Your task to perform on an android device: turn on bluetooth scan Image 0: 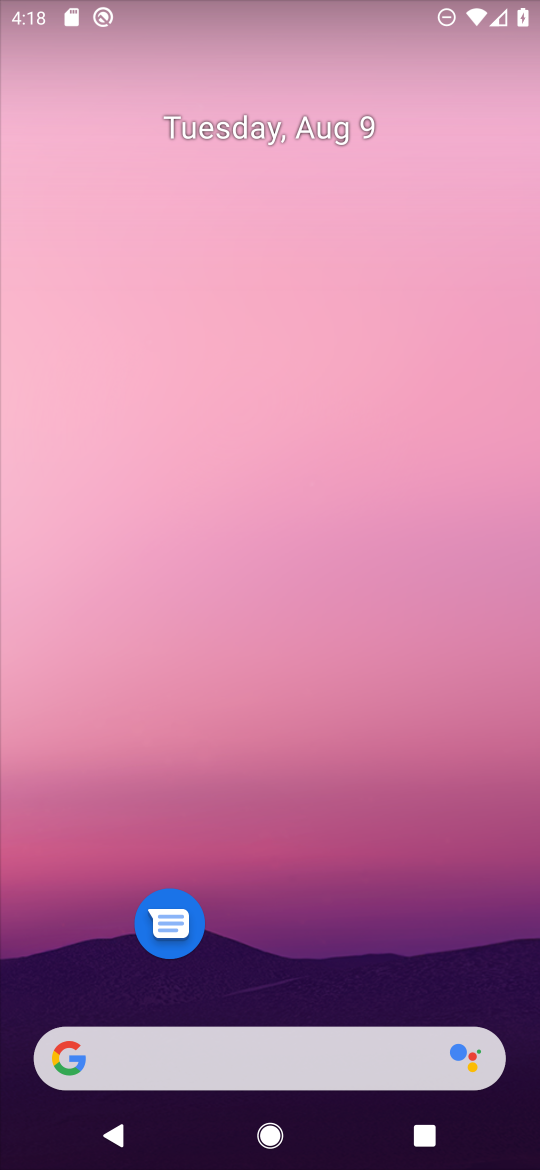
Step 0: drag from (326, 695) to (356, 52)
Your task to perform on an android device: turn on bluetooth scan Image 1: 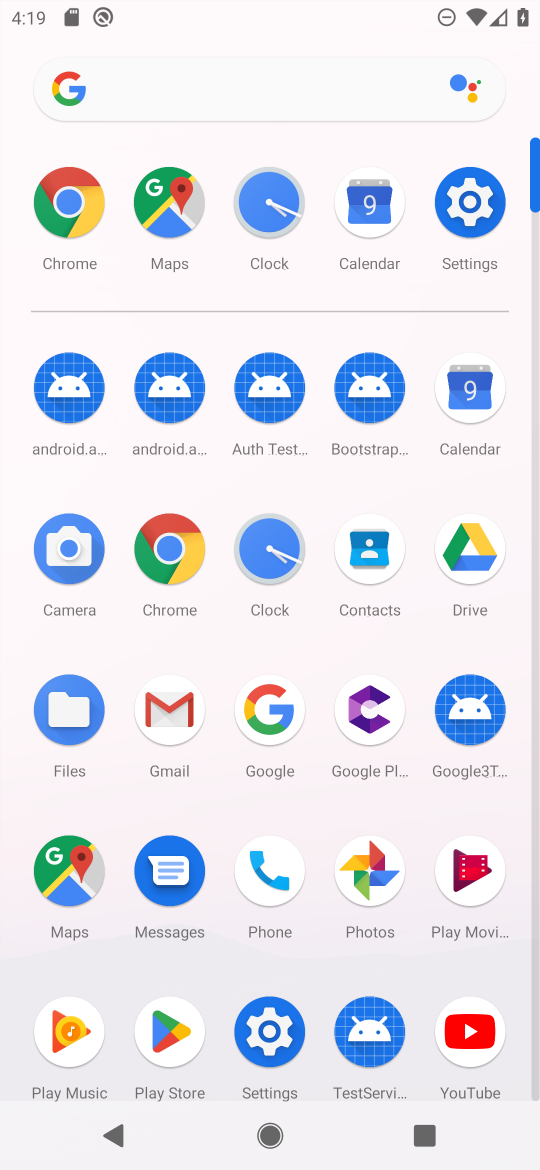
Step 1: click (468, 196)
Your task to perform on an android device: turn on bluetooth scan Image 2: 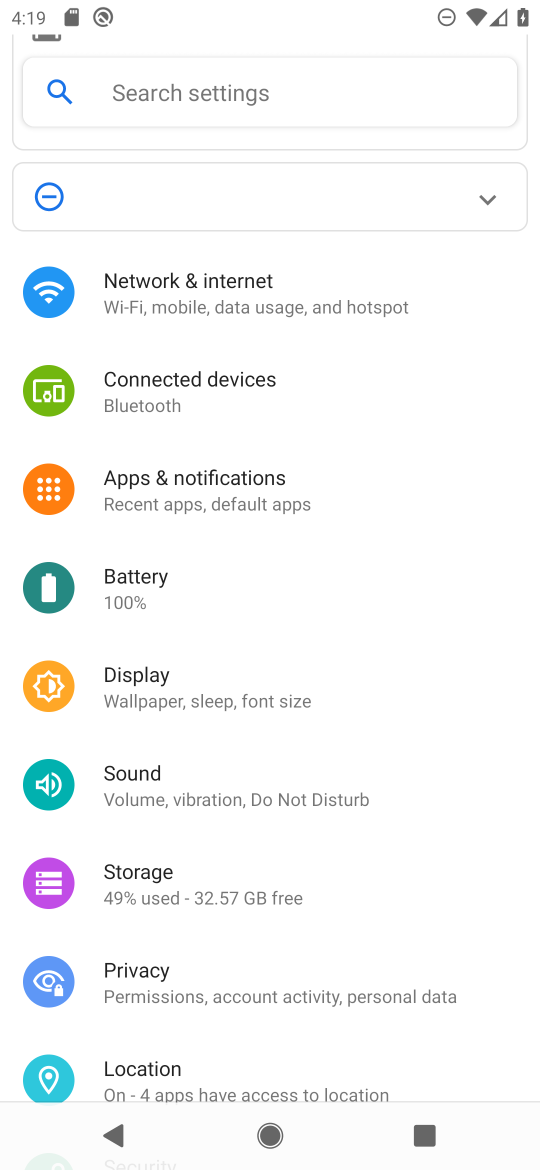
Step 2: click (177, 414)
Your task to perform on an android device: turn on bluetooth scan Image 3: 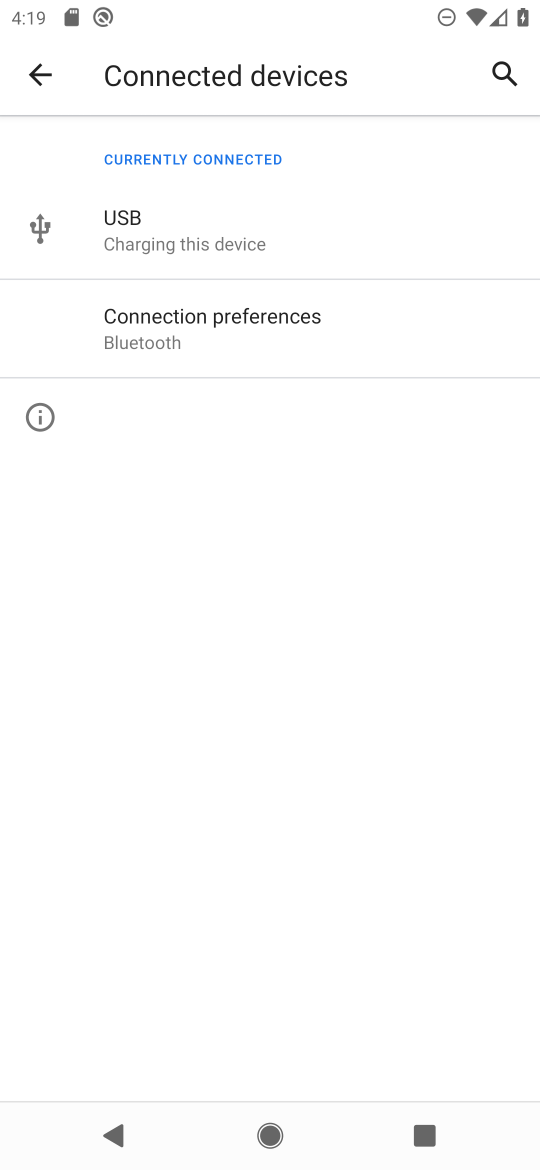
Step 3: click (172, 325)
Your task to perform on an android device: turn on bluetooth scan Image 4: 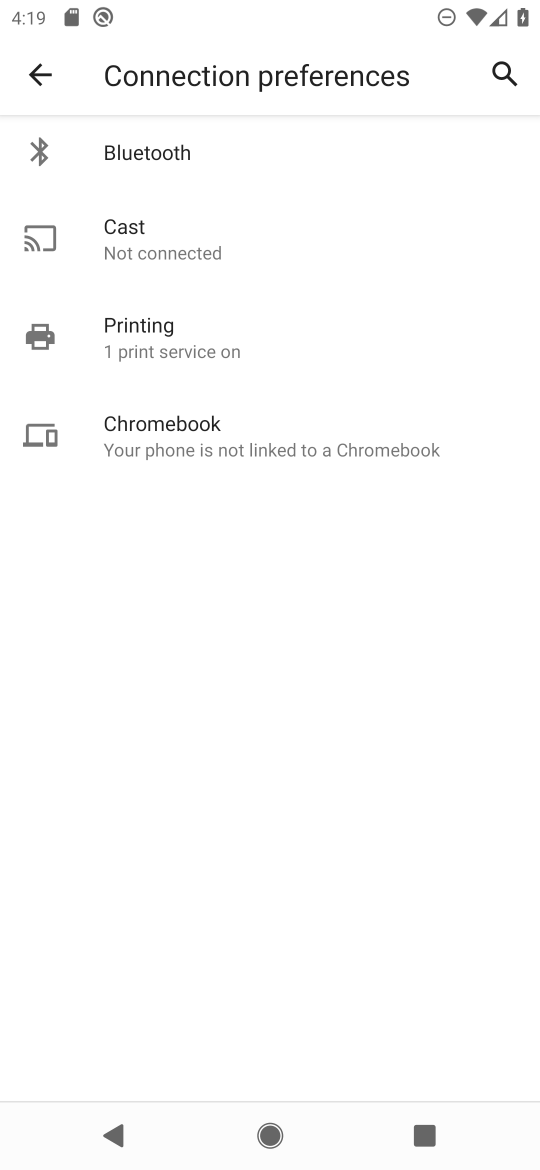
Step 4: click (154, 149)
Your task to perform on an android device: turn on bluetooth scan Image 5: 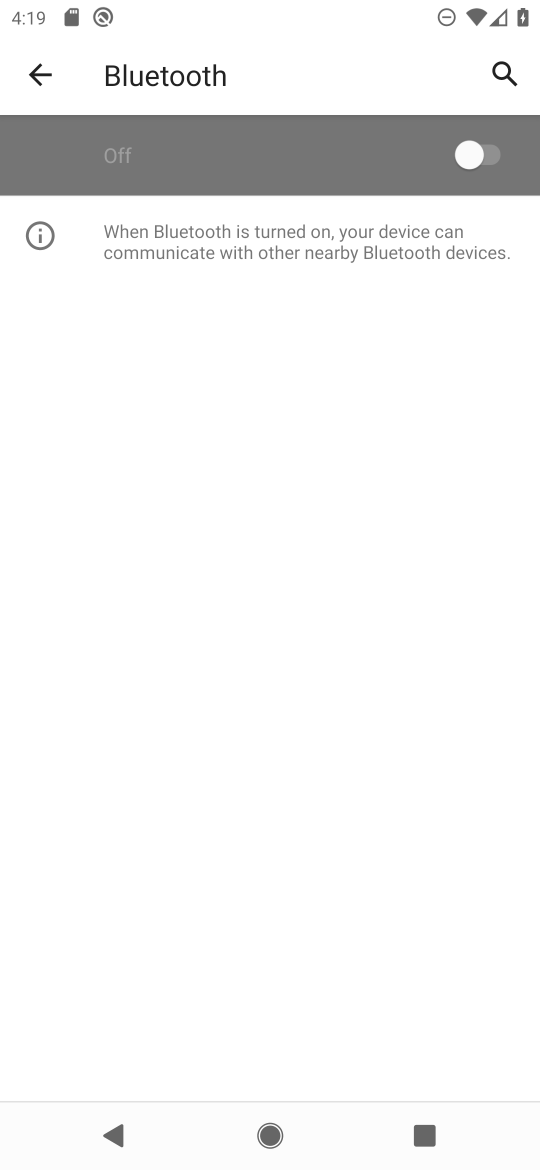
Step 5: click (477, 154)
Your task to perform on an android device: turn on bluetooth scan Image 6: 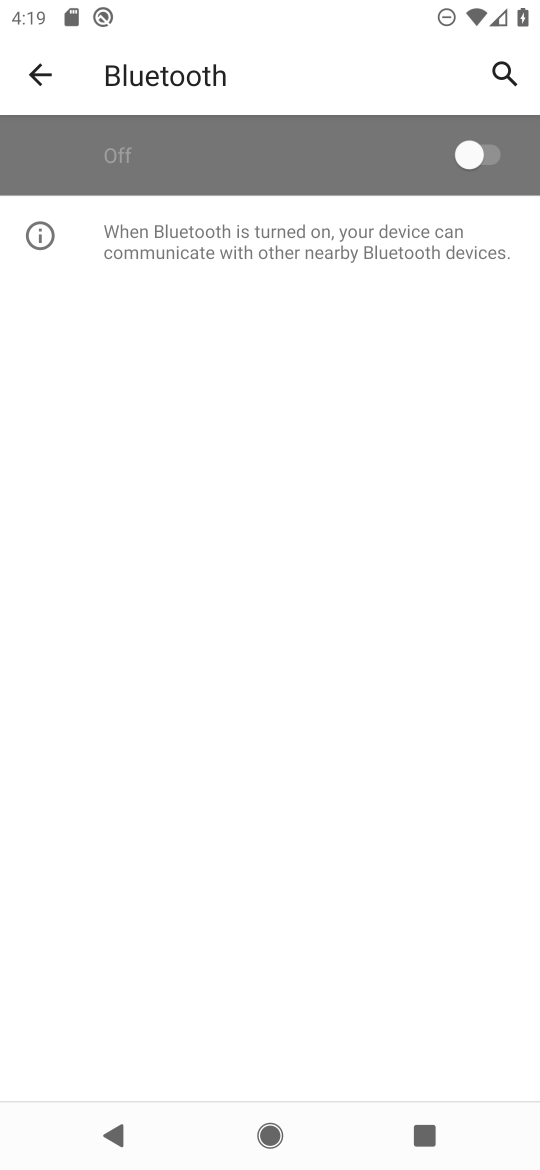
Step 6: task complete